Your task to perform on an android device: toggle javascript in the chrome app Image 0: 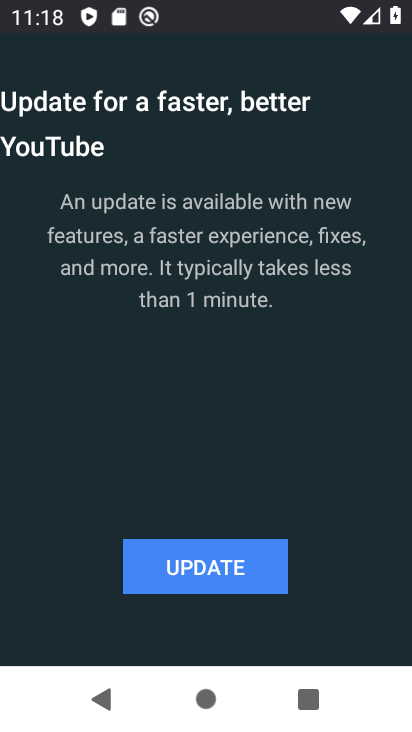
Step 0: press back button
Your task to perform on an android device: toggle javascript in the chrome app Image 1: 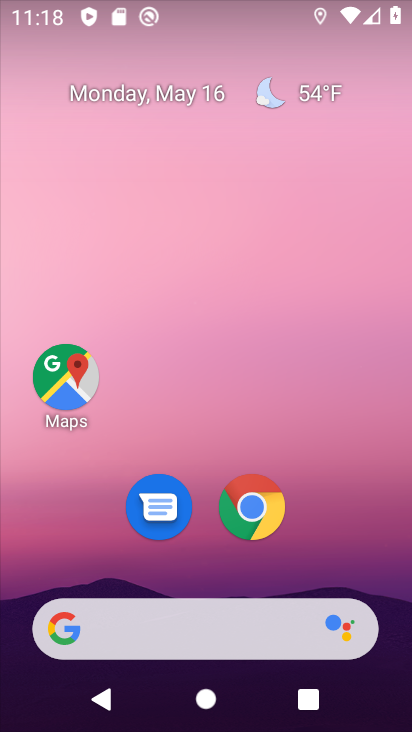
Step 1: drag from (399, 607) to (322, 107)
Your task to perform on an android device: toggle javascript in the chrome app Image 2: 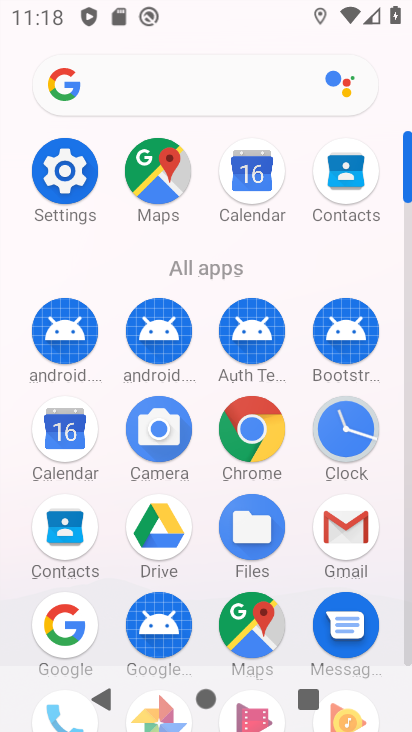
Step 2: click (254, 453)
Your task to perform on an android device: toggle javascript in the chrome app Image 3: 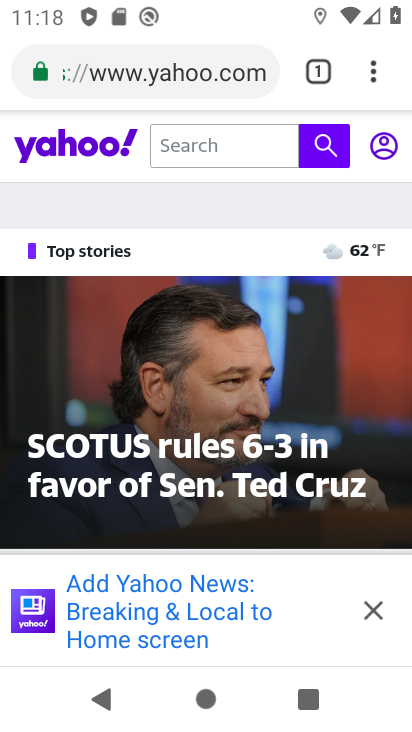
Step 3: click (380, 85)
Your task to perform on an android device: toggle javascript in the chrome app Image 4: 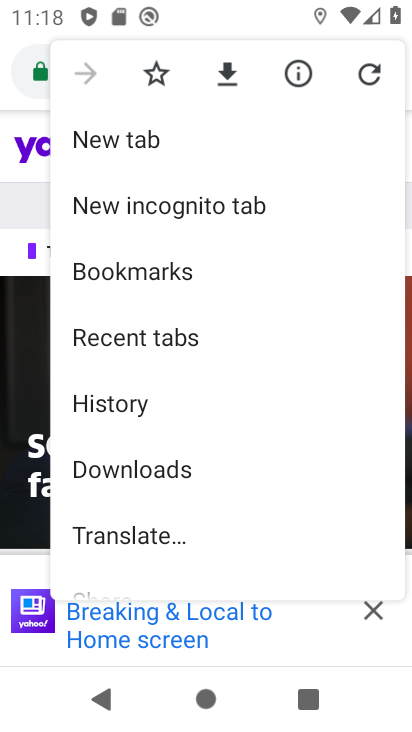
Step 4: drag from (240, 580) to (253, 67)
Your task to perform on an android device: toggle javascript in the chrome app Image 5: 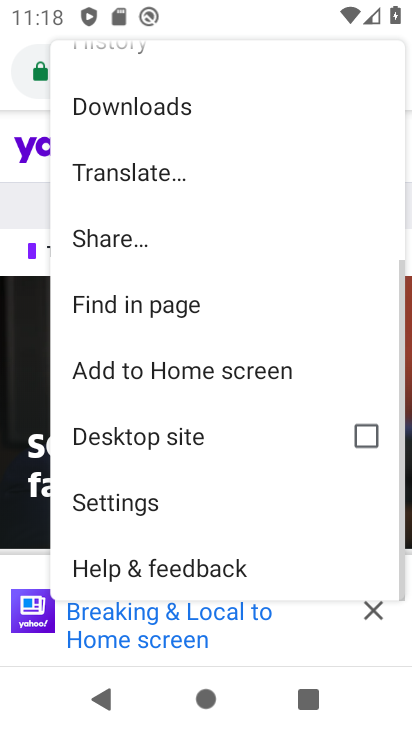
Step 5: click (195, 494)
Your task to perform on an android device: toggle javascript in the chrome app Image 6: 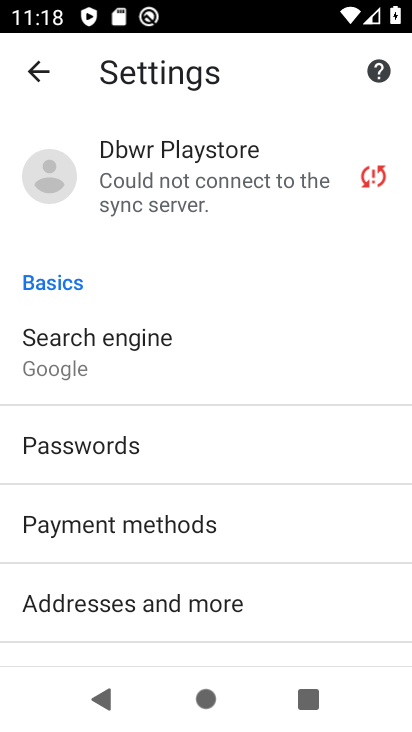
Step 6: drag from (263, 644) to (190, 22)
Your task to perform on an android device: toggle javascript in the chrome app Image 7: 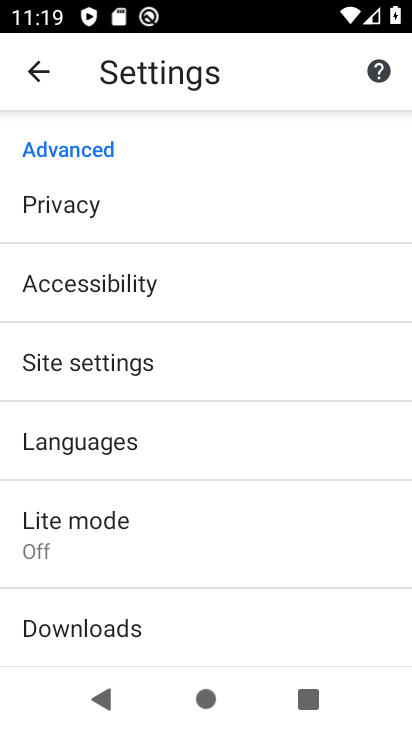
Step 7: click (197, 376)
Your task to perform on an android device: toggle javascript in the chrome app Image 8: 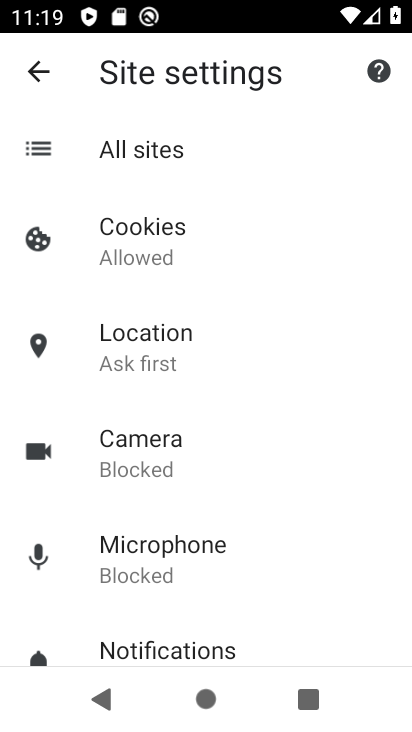
Step 8: drag from (278, 625) to (237, 235)
Your task to perform on an android device: toggle javascript in the chrome app Image 9: 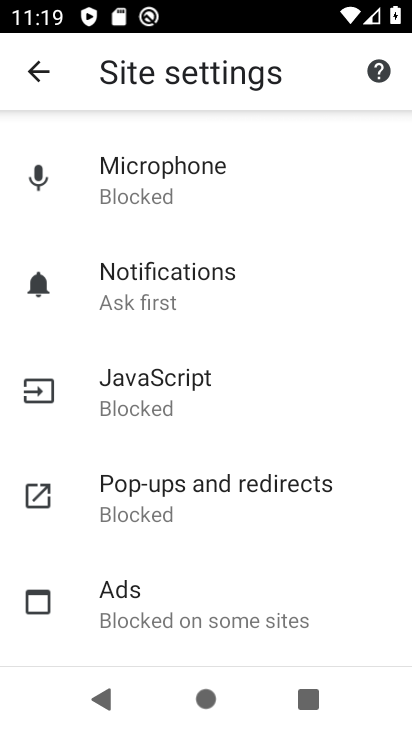
Step 9: click (260, 397)
Your task to perform on an android device: toggle javascript in the chrome app Image 10: 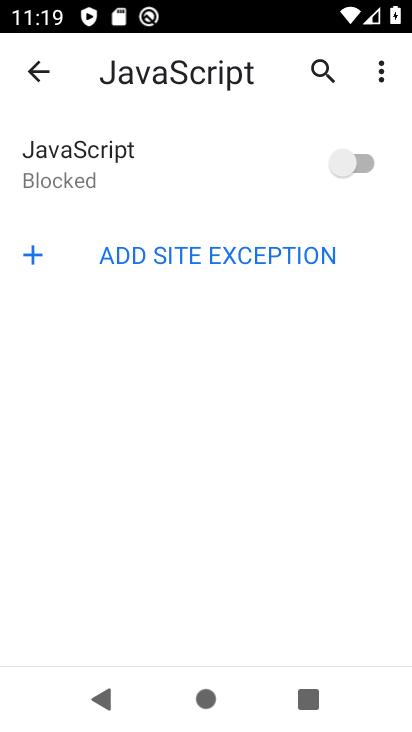
Step 10: click (362, 155)
Your task to perform on an android device: toggle javascript in the chrome app Image 11: 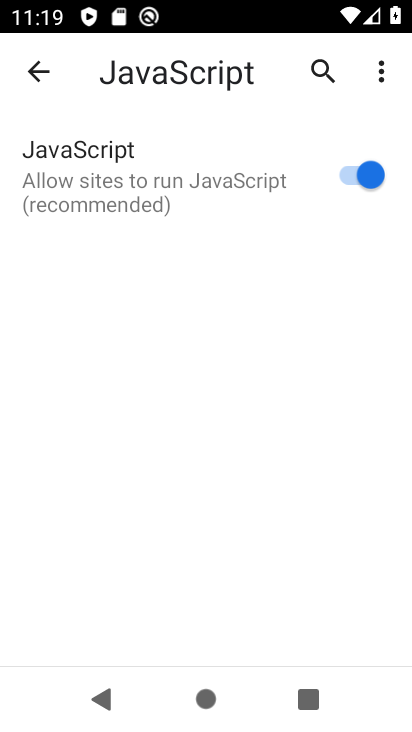
Step 11: task complete